Your task to perform on an android device: Search for seafood restaurants on Google Maps Image 0: 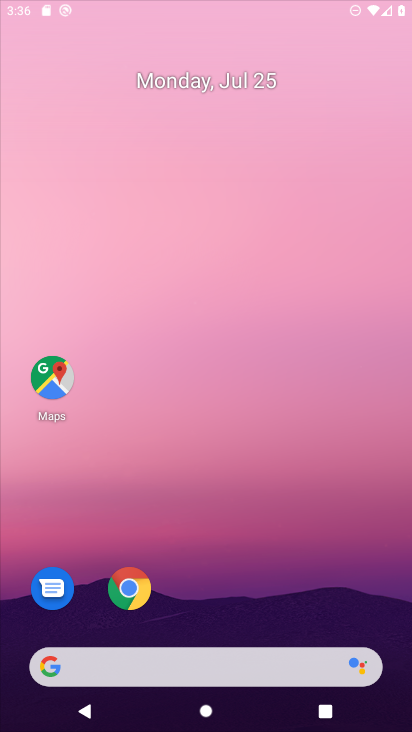
Step 0: drag from (235, 544) to (220, 241)
Your task to perform on an android device: Search for seafood restaurants on Google Maps Image 1: 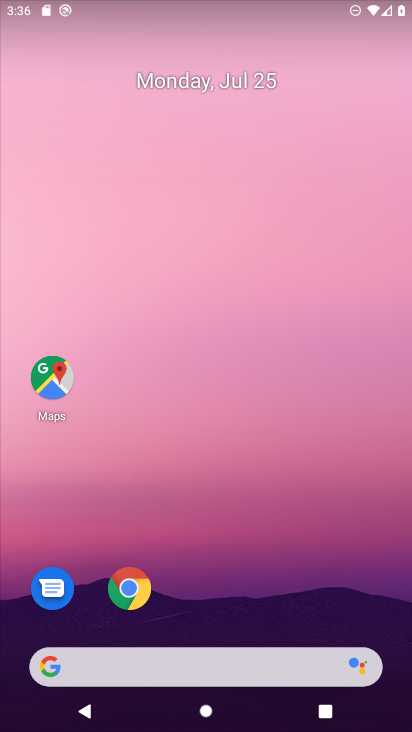
Step 1: drag from (270, 671) to (215, 185)
Your task to perform on an android device: Search for seafood restaurants on Google Maps Image 2: 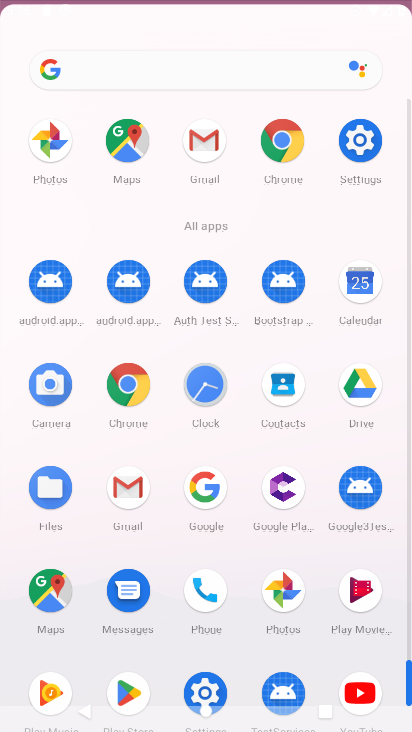
Step 2: drag from (269, 469) to (246, 112)
Your task to perform on an android device: Search for seafood restaurants on Google Maps Image 3: 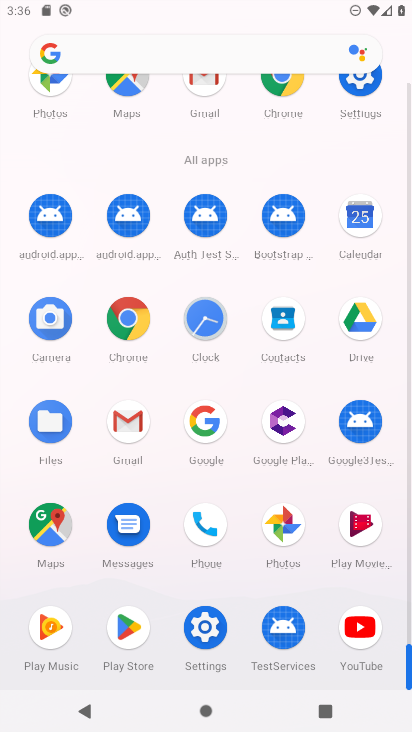
Step 3: click (62, 520)
Your task to perform on an android device: Search for seafood restaurants on Google Maps Image 4: 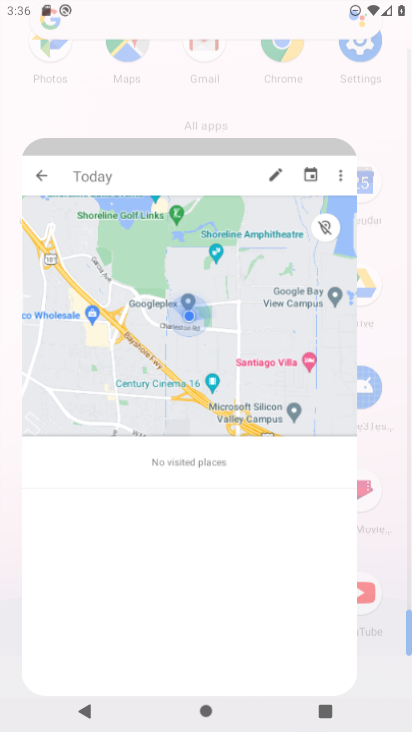
Step 4: click (45, 512)
Your task to perform on an android device: Search for seafood restaurants on Google Maps Image 5: 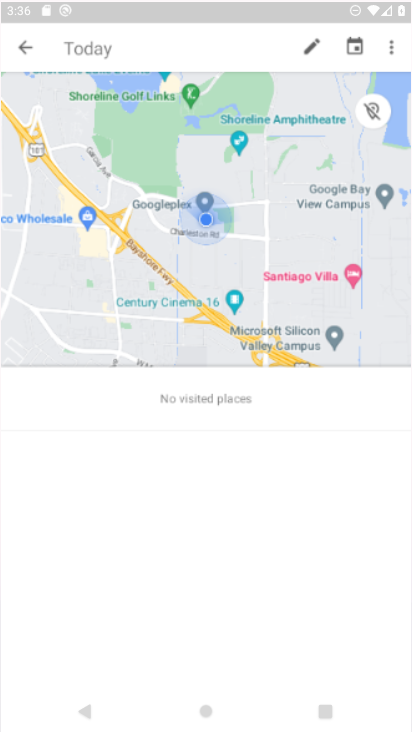
Step 5: click (46, 520)
Your task to perform on an android device: Search for seafood restaurants on Google Maps Image 6: 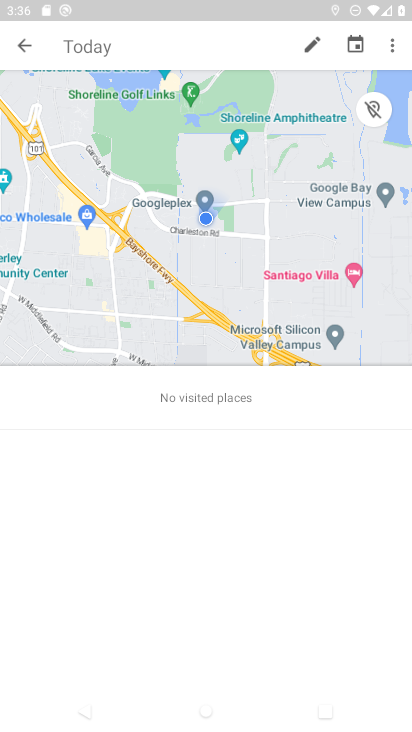
Step 6: click (77, 44)
Your task to perform on an android device: Search for seafood restaurants on Google Maps Image 7: 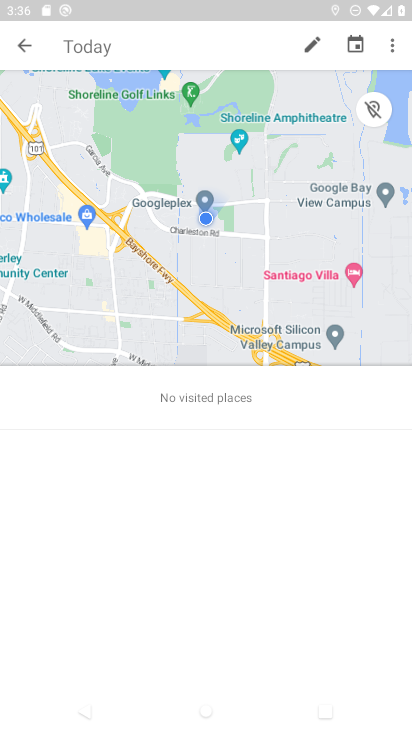
Step 7: click (74, 46)
Your task to perform on an android device: Search for seafood restaurants on Google Maps Image 8: 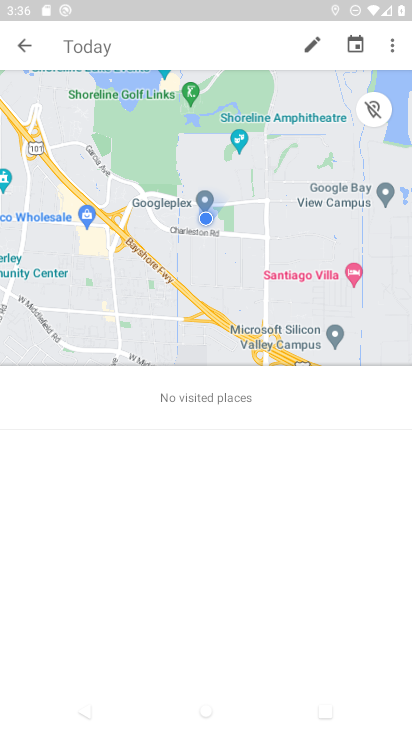
Step 8: click (74, 46)
Your task to perform on an android device: Search for seafood restaurants on Google Maps Image 9: 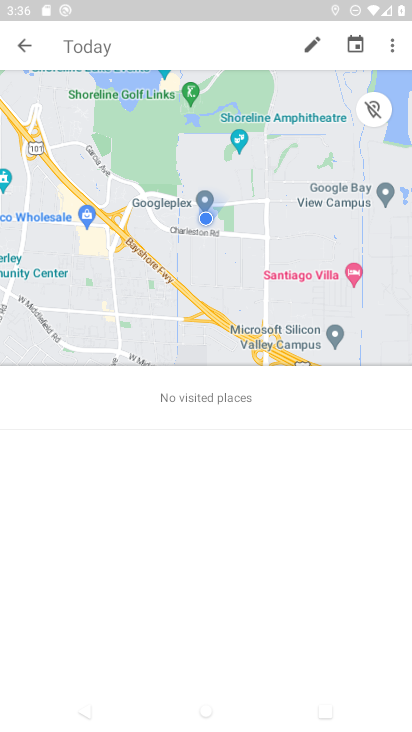
Step 9: click (74, 46)
Your task to perform on an android device: Search for seafood restaurants on Google Maps Image 10: 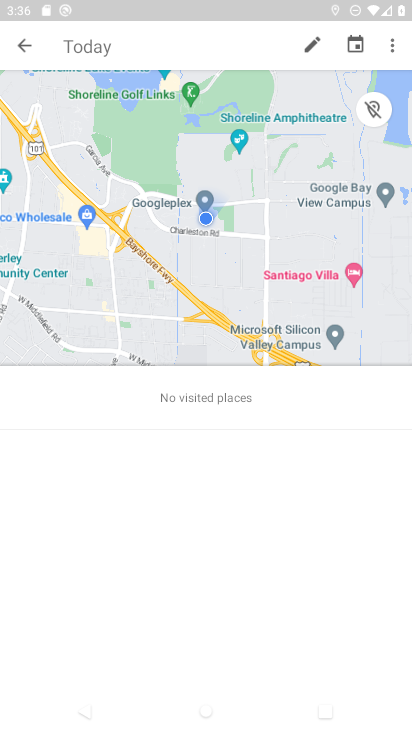
Step 10: click (76, 44)
Your task to perform on an android device: Search for seafood restaurants on Google Maps Image 11: 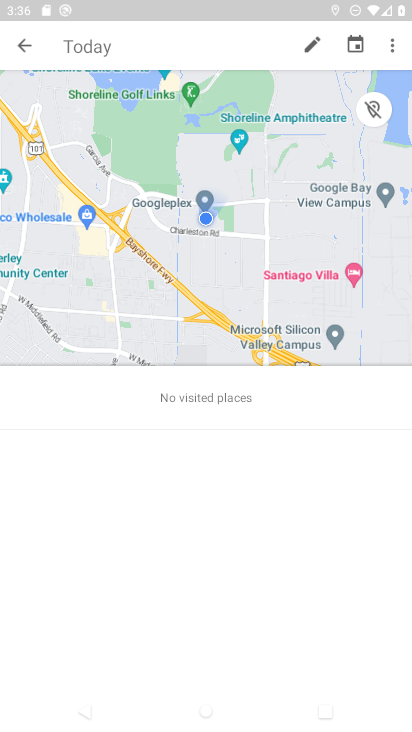
Step 11: click (74, 48)
Your task to perform on an android device: Search for seafood restaurants on Google Maps Image 12: 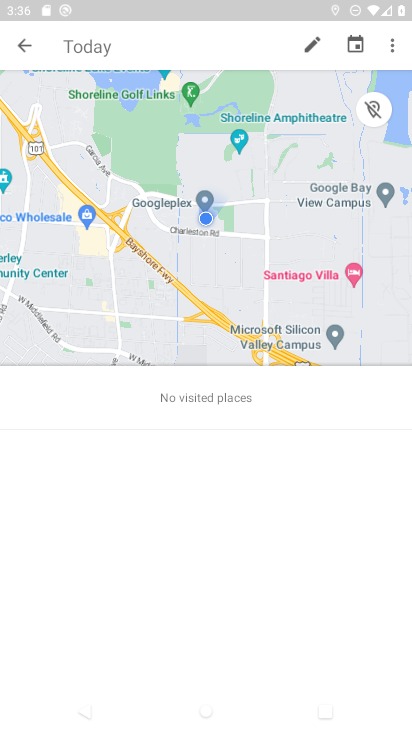
Step 12: click (72, 49)
Your task to perform on an android device: Search for seafood restaurants on Google Maps Image 13: 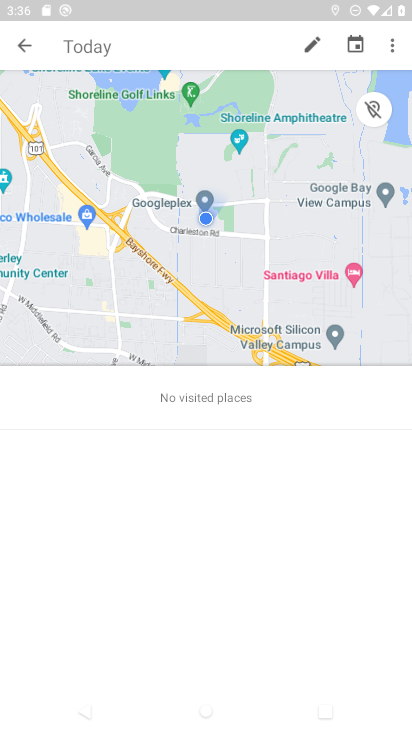
Step 13: click (80, 48)
Your task to perform on an android device: Search for seafood restaurants on Google Maps Image 14: 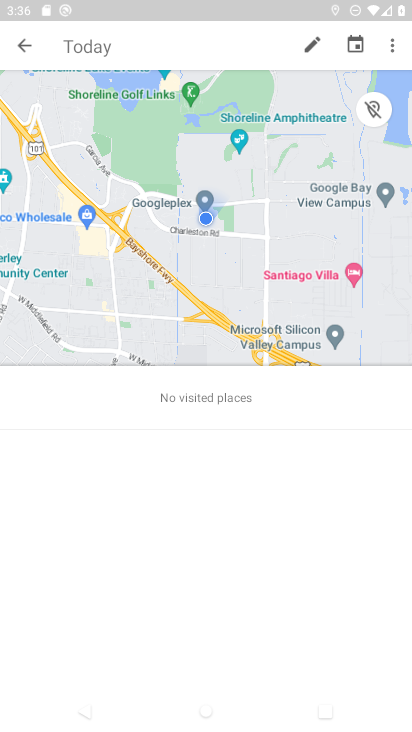
Step 14: click (84, 59)
Your task to perform on an android device: Search for seafood restaurants on Google Maps Image 15: 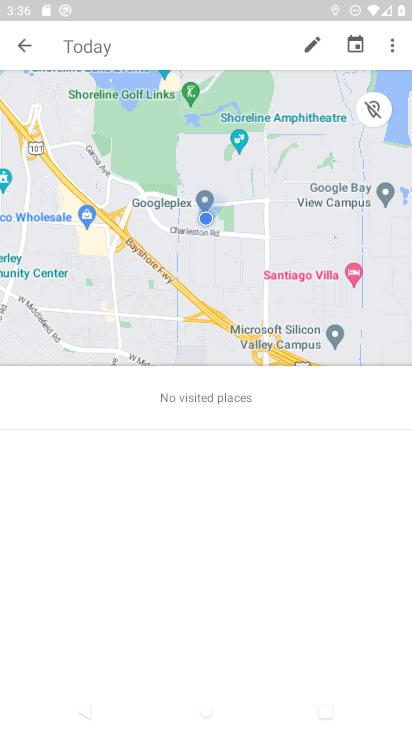
Step 15: click (98, 52)
Your task to perform on an android device: Search for seafood restaurants on Google Maps Image 16: 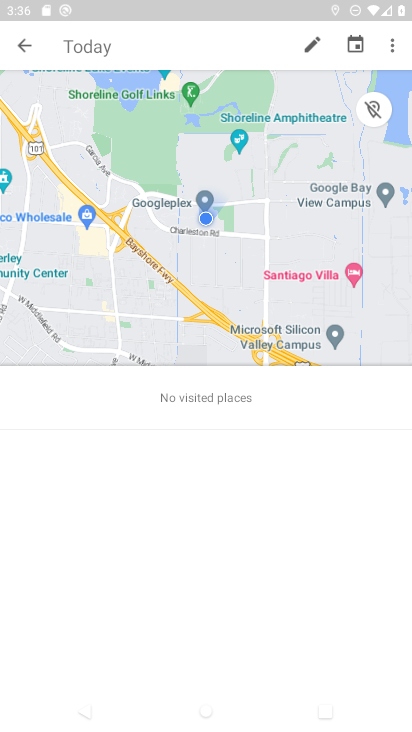
Step 16: click (96, 55)
Your task to perform on an android device: Search for seafood restaurants on Google Maps Image 17: 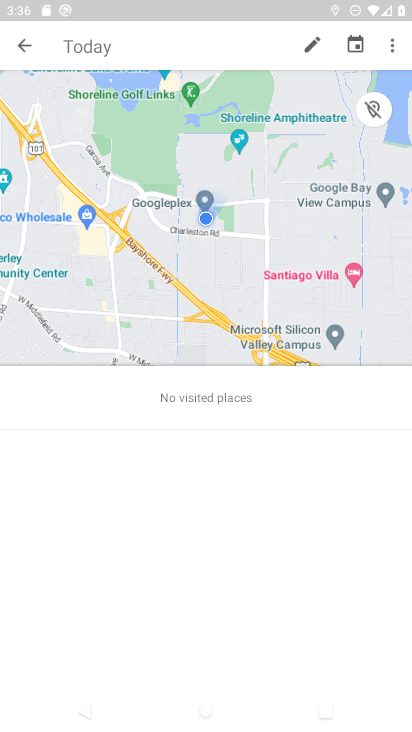
Step 17: click (79, 62)
Your task to perform on an android device: Search for seafood restaurants on Google Maps Image 18: 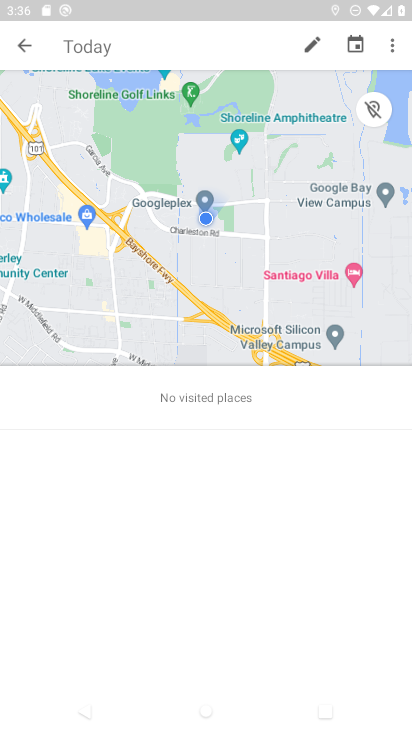
Step 18: click (77, 46)
Your task to perform on an android device: Search for seafood restaurants on Google Maps Image 19: 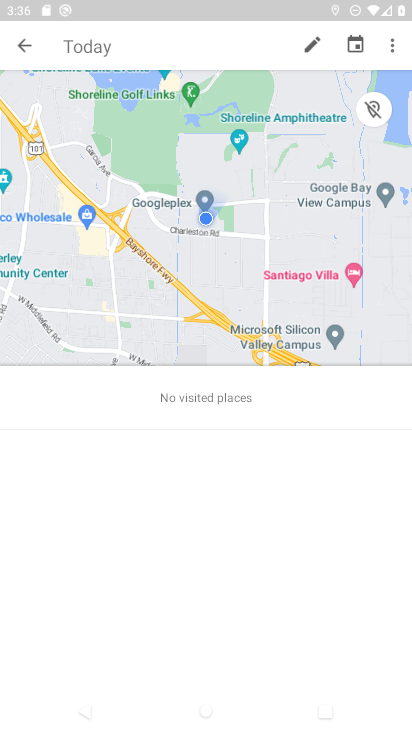
Step 19: click (73, 42)
Your task to perform on an android device: Search for seafood restaurants on Google Maps Image 20: 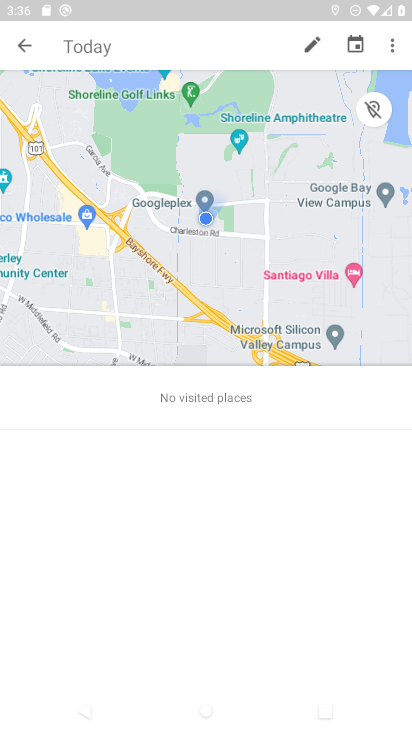
Step 20: click (48, 44)
Your task to perform on an android device: Search for seafood restaurants on Google Maps Image 21: 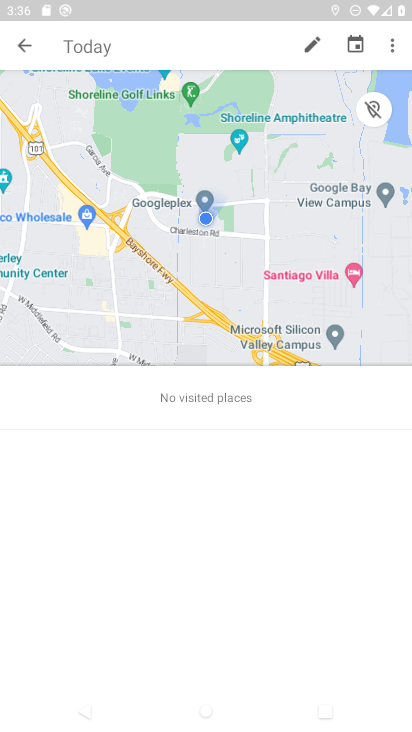
Step 21: click (80, 45)
Your task to perform on an android device: Search for seafood restaurants on Google Maps Image 22: 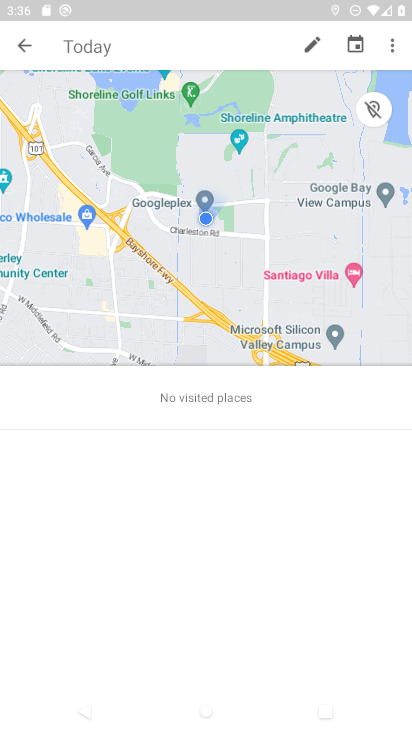
Step 22: click (81, 43)
Your task to perform on an android device: Search for seafood restaurants on Google Maps Image 23: 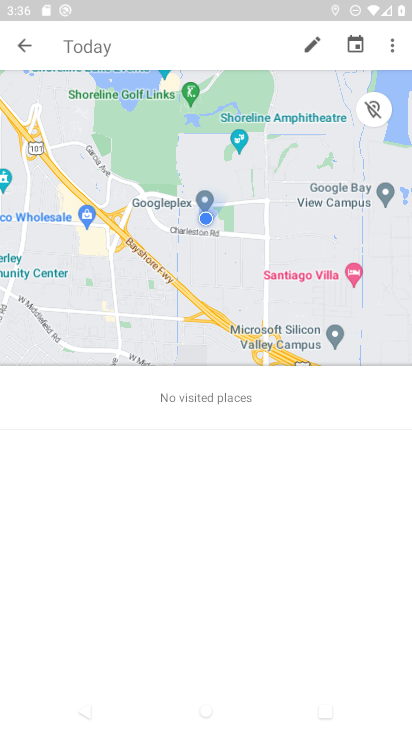
Step 23: click (79, 40)
Your task to perform on an android device: Search for seafood restaurants on Google Maps Image 24: 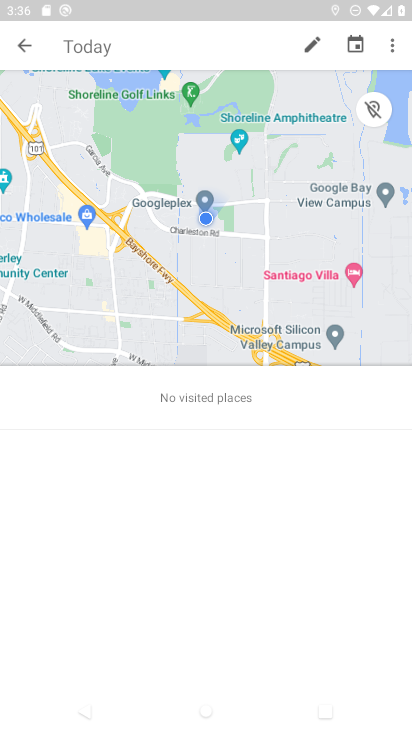
Step 24: click (27, 41)
Your task to perform on an android device: Search for seafood restaurants on Google Maps Image 25: 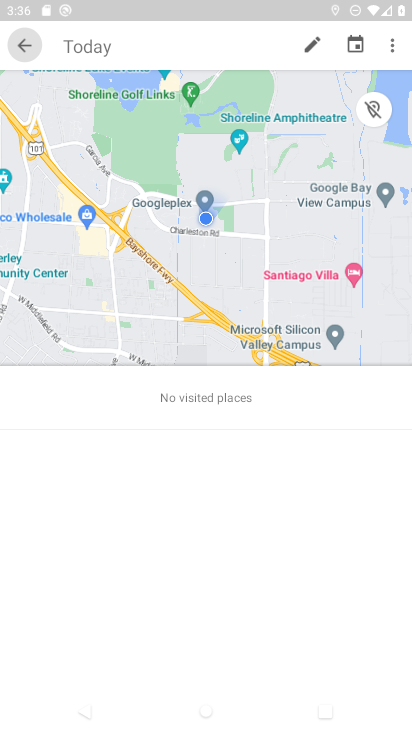
Step 25: click (24, 42)
Your task to perform on an android device: Search for seafood restaurants on Google Maps Image 26: 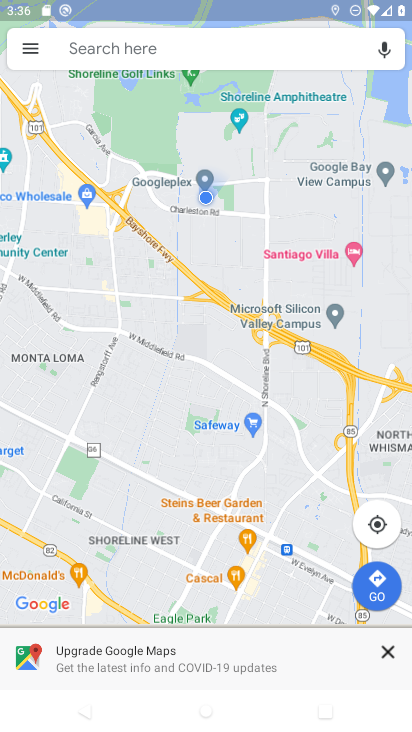
Step 26: click (77, 42)
Your task to perform on an android device: Search for seafood restaurants on Google Maps Image 27: 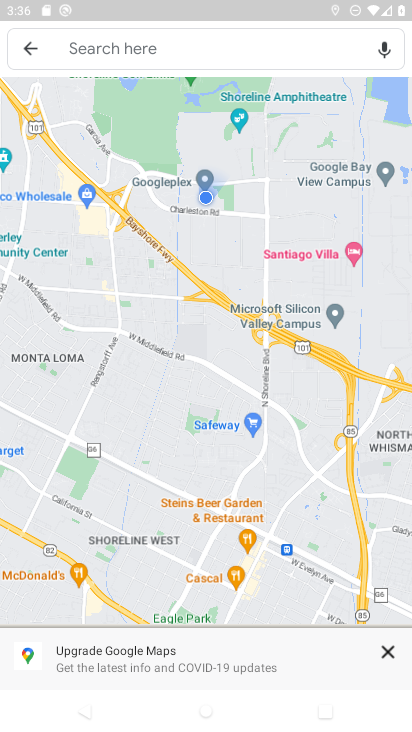
Step 27: click (77, 42)
Your task to perform on an android device: Search for seafood restaurants on Google Maps Image 28: 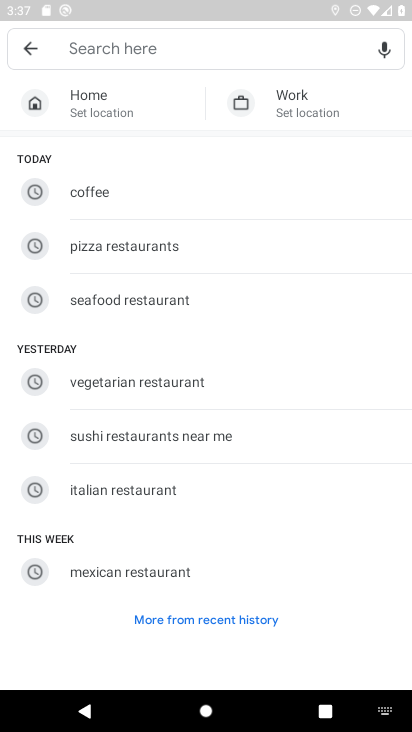
Step 28: type "seafood restaurants"
Your task to perform on an android device: Search for seafood restaurants on Google Maps Image 29: 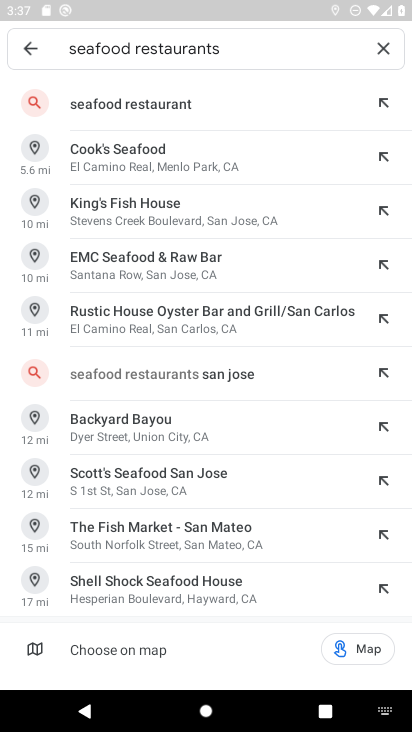
Step 29: click (143, 100)
Your task to perform on an android device: Search for seafood restaurants on Google Maps Image 30: 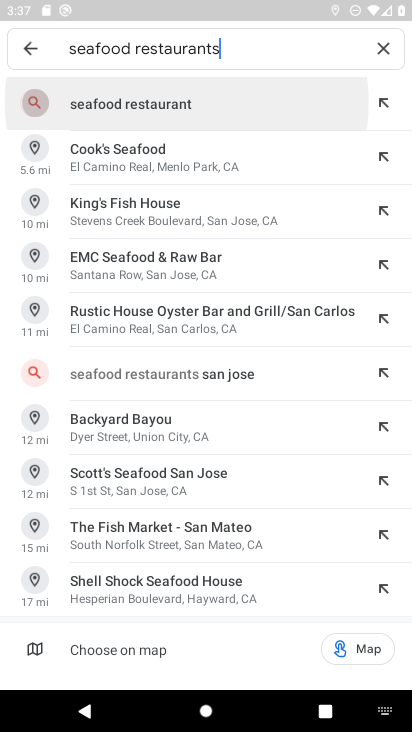
Step 30: click (144, 103)
Your task to perform on an android device: Search for seafood restaurants on Google Maps Image 31: 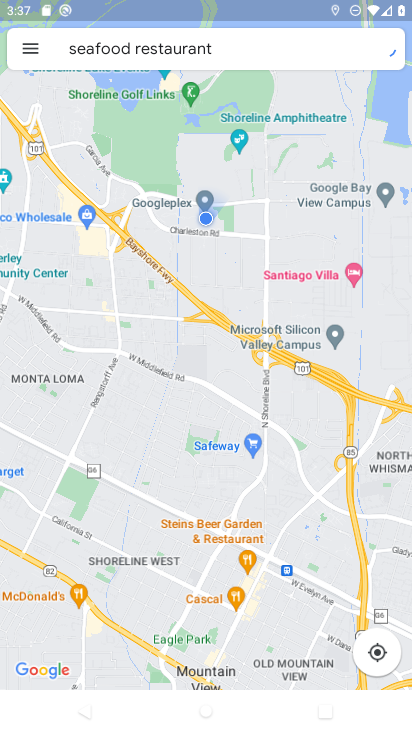
Step 31: task complete